Your task to perform on an android device: Open battery settings Image 0: 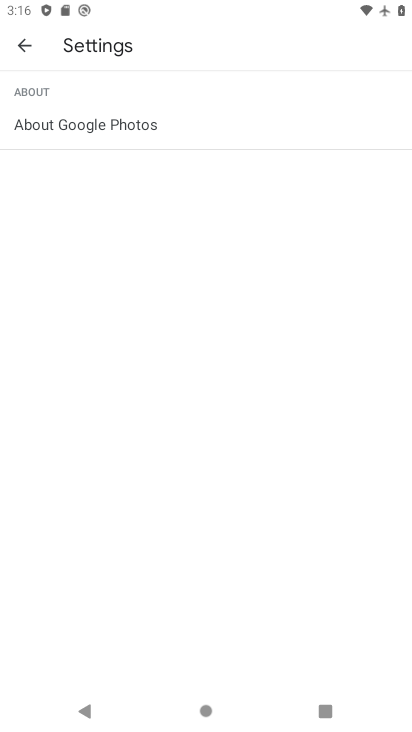
Step 0: press home button
Your task to perform on an android device: Open battery settings Image 1: 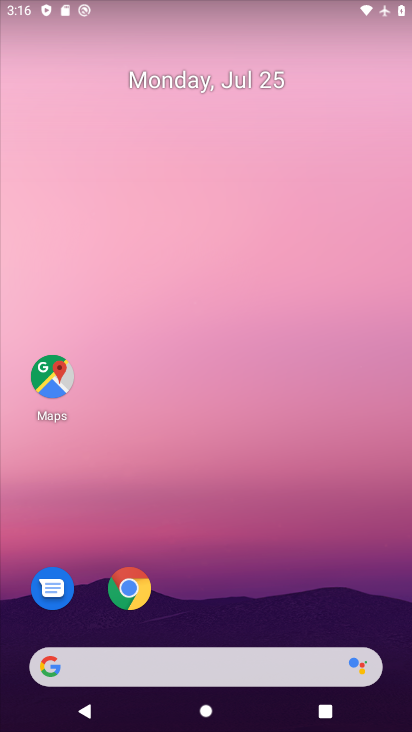
Step 1: drag from (236, 724) to (238, 74)
Your task to perform on an android device: Open battery settings Image 2: 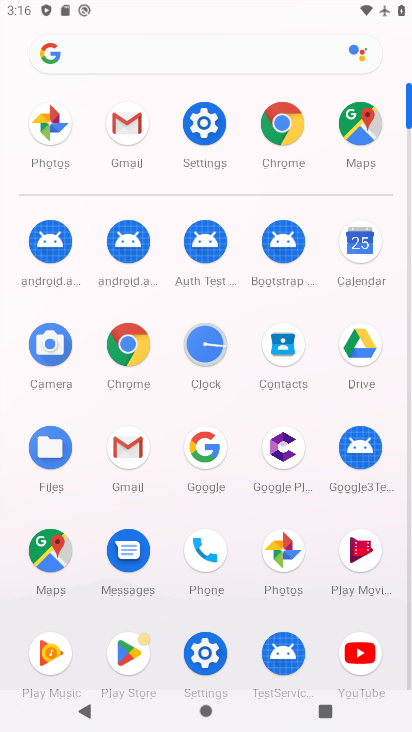
Step 2: click (213, 90)
Your task to perform on an android device: Open battery settings Image 3: 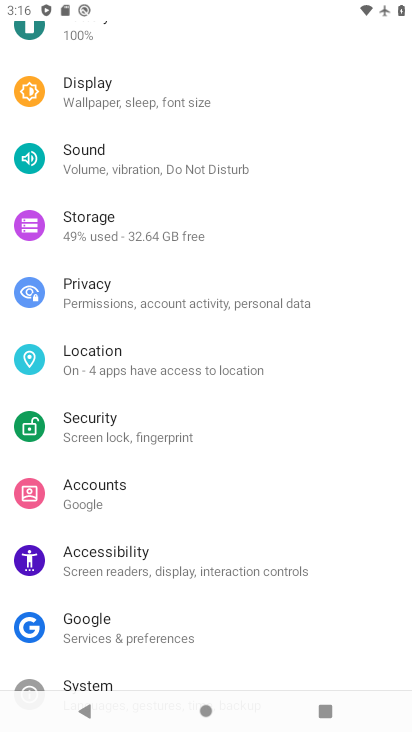
Step 3: drag from (119, 118) to (153, 501)
Your task to perform on an android device: Open battery settings Image 4: 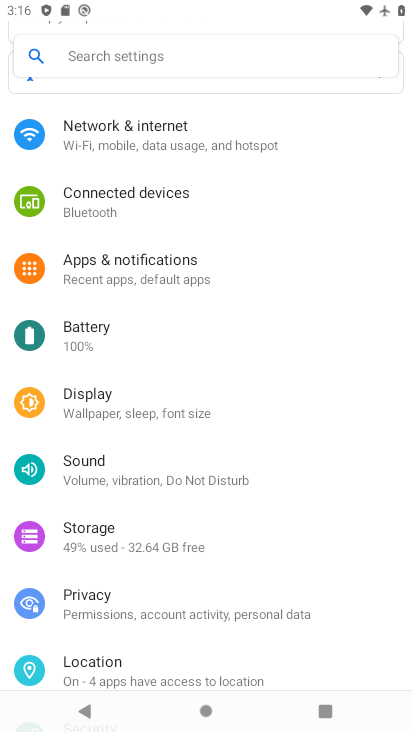
Step 4: drag from (138, 596) to (137, 379)
Your task to perform on an android device: Open battery settings Image 5: 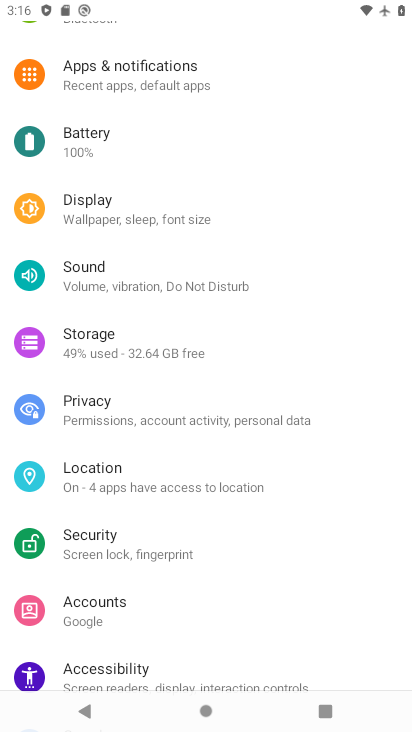
Step 5: click (93, 130)
Your task to perform on an android device: Open battery settings Image 6: 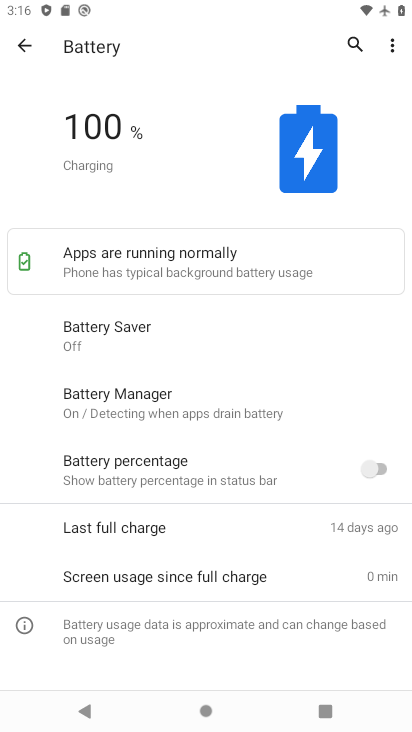
Step 6: task complete